Your task to perform on an android device: Open Google Chrome and open the bookmarks view Image 0: 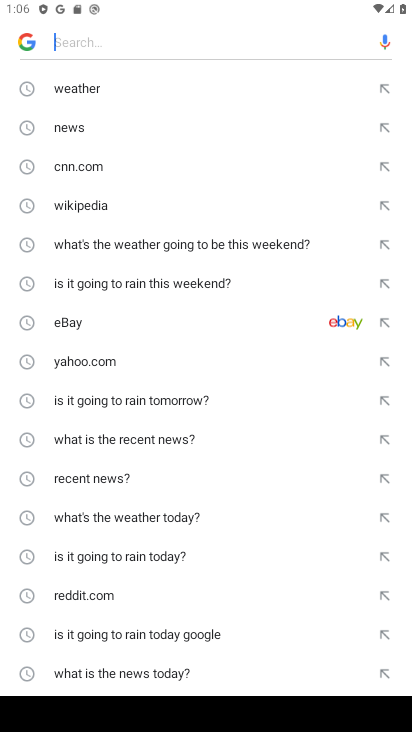
Step 0: press home button
Your task to perform on an android device: Open Google Chrome and open the bookmarks view Image 1: 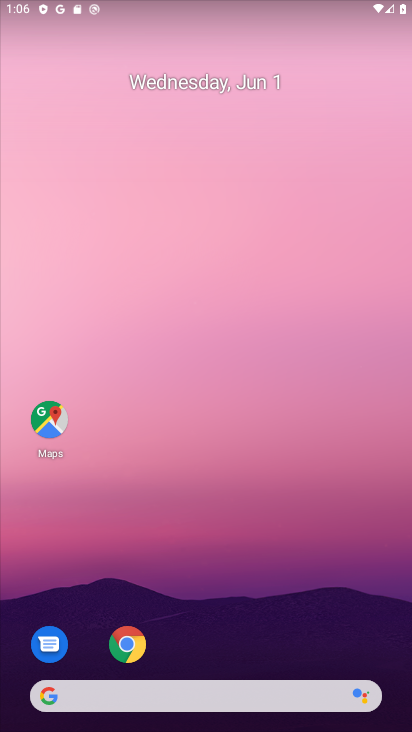
Step 1: click (124, 649)
Your task to perform on an android device: Open Google Chrome and open the bookmarks view Image 2: 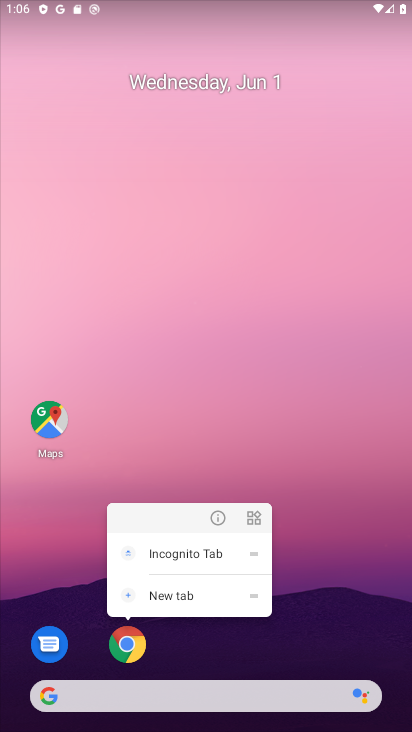
Step 2: click (127, 645)
Your task to perform on an android device: Open Google Chrome and open the bookmarks view Image 3: 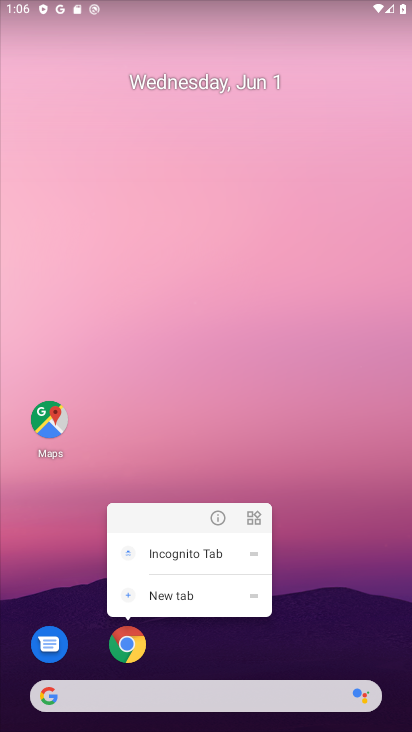
Step 3: click (127, 645)
Your task to perform on an android device: Open Google Chrome and open the bookmarks view Image 4: 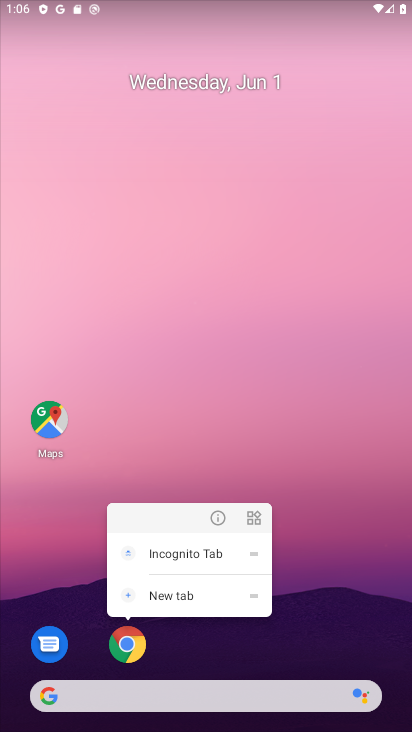
Step 4: click (127, 645)
Your task to perform on an android device: Open Google Chrome and open the bookmarks view Image 5: 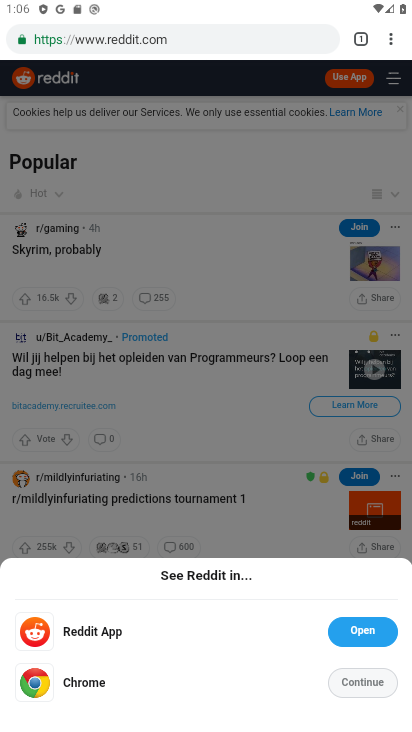
Step 5: task complete